Your task to perform on an android device: Search for sushi restaurants on Maps Image 0: 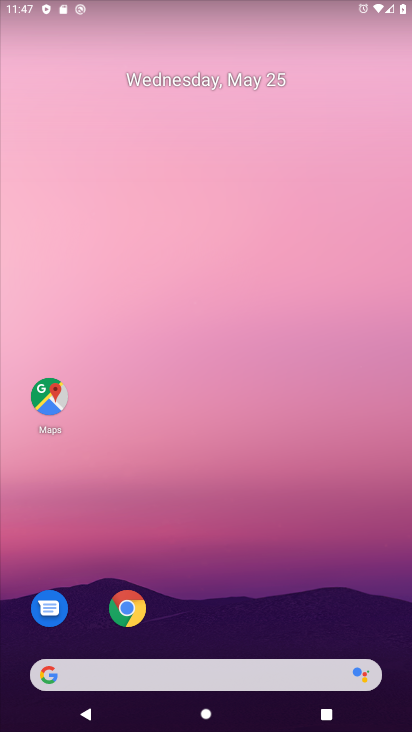
Step 0: drag from (228, 720) to (250, 135)
Your task to perform on an android device: Search for sushi restaurants on Maps Image 1: 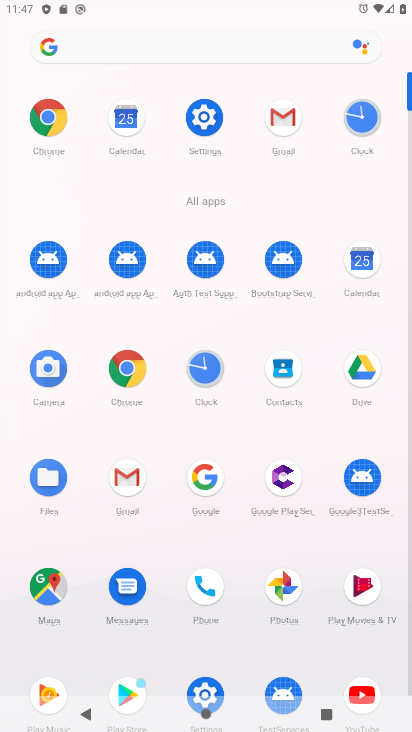
Step 1: click (55, 591)
Your task to perform on an android device: Search for sushi restaurants on Maps Image 2: 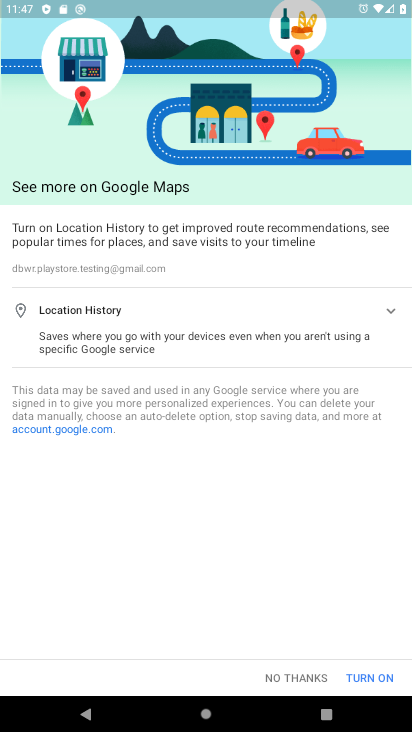
Step 2: click (374, 677)
Your task to perform on an android device: Search for sushi restaurants on Maps Image 3: 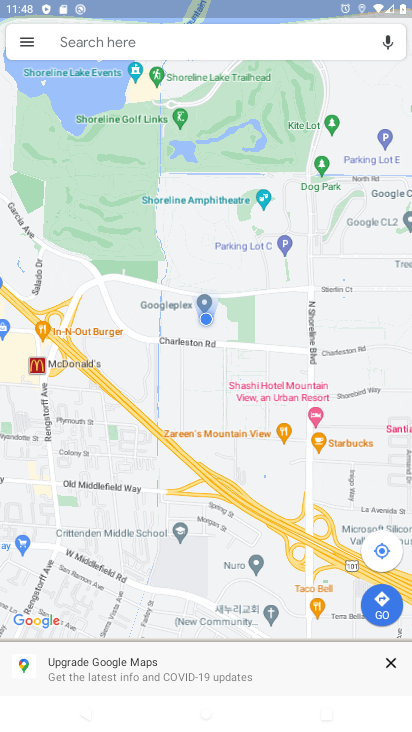
Step 3: click (228, 40)
Your task to perform on an android device: Search for sushi restaurants on Maps Image 4: 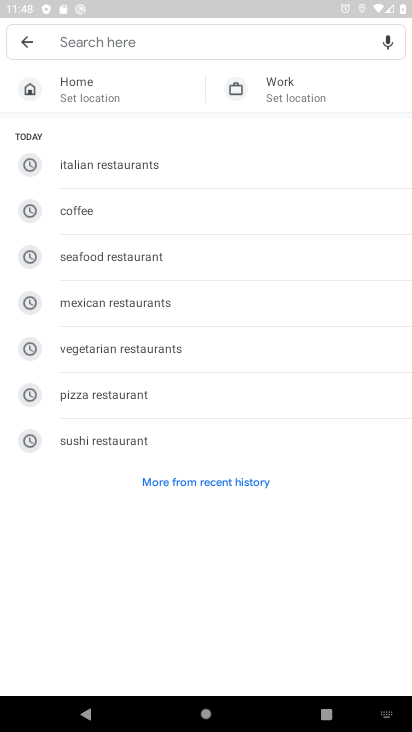
Step 4: type "sushi restaurants"
Your task to perform on an android device: Search for sushi restaurants on Maps Image 5: 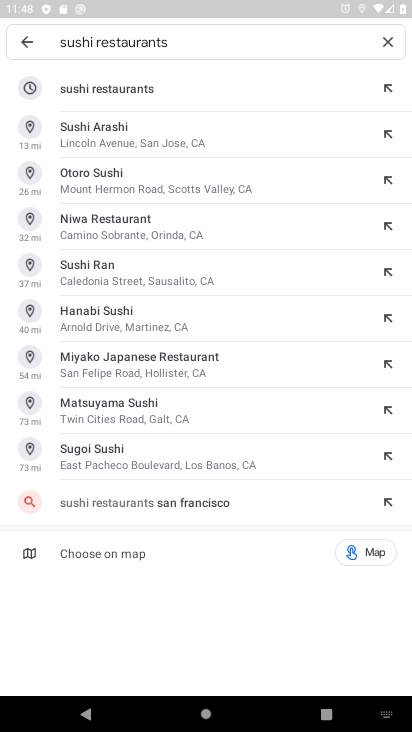
Step 5: click (130, 88)
Your task to perform on an android device: Search for sushi restaurants on Maps Image 6: 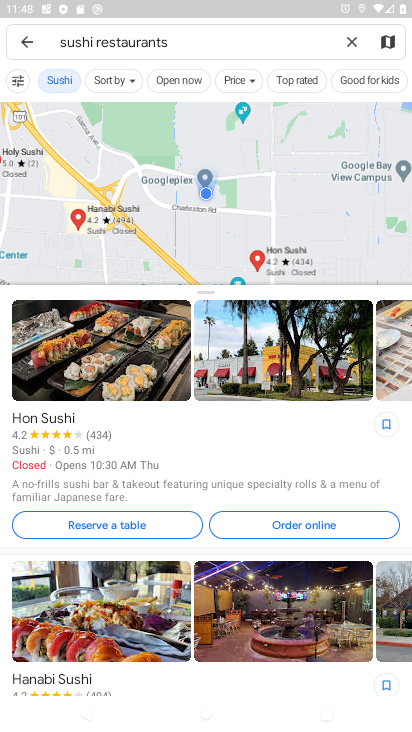
Step 6: task complete